Your task to perform on an android device: Open Google Chrome and open the bookmarks view Image 0: 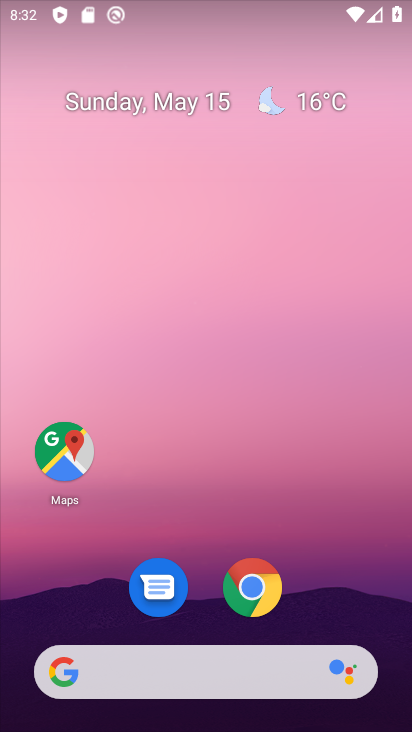
Step 0: click (253, 585)
Your task to perform on an android device: Open Google Chrome and open the bookmarks view Image 1: 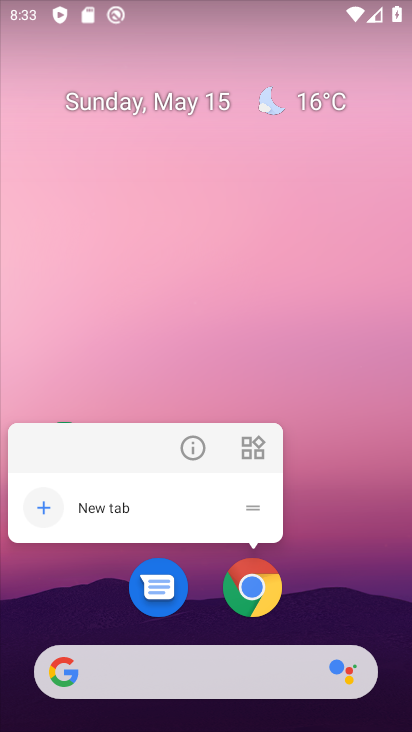
Step 1: click (262, 588)
Your task to perform on an android device: Open Google Chrome and open the bookmarks view Image 2: 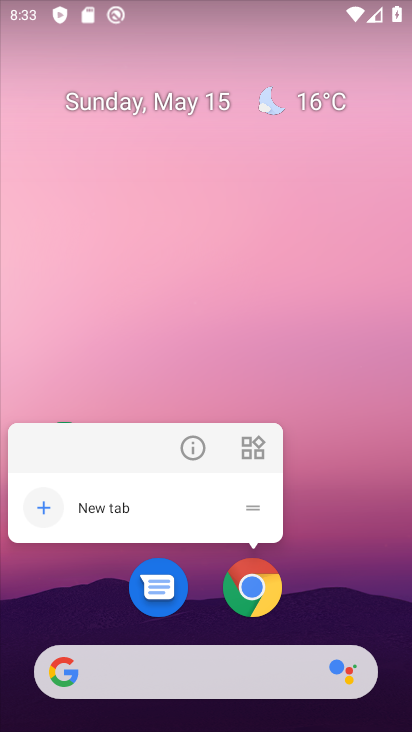
Step 2: click (256, 590)
Your task to perform on an android device: Open Google Chrome and open the bookmarks view Image 3: 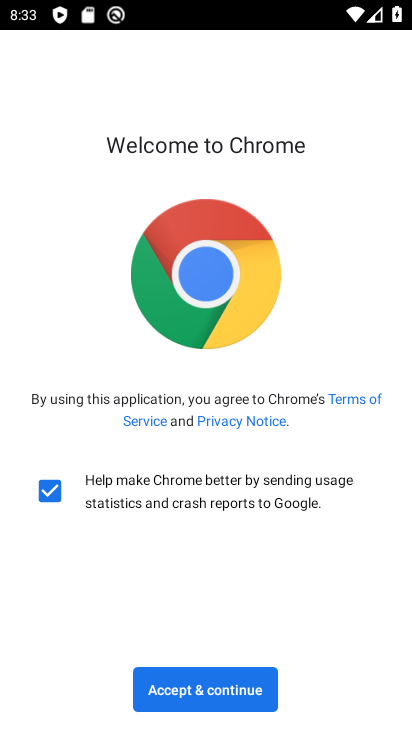
Step 3: click (212, 661)
Your task to perform on an android device: Open Google Chrome and open the bookmarks view Image 4: 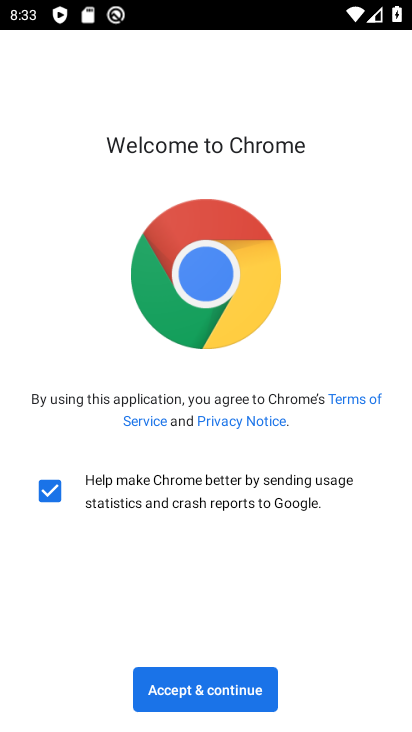
Step 4: click (209, 670)
Your task to perform on an android device: Open Google Chrome and open the bookmarks view Image 5: 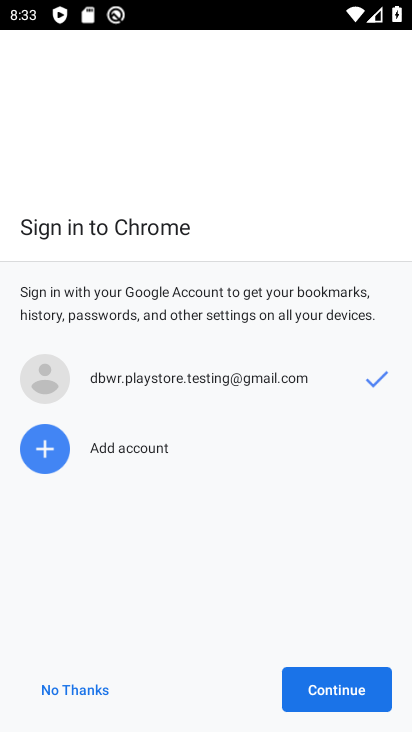
Step 5: click (354, 694)
Your task to perform on an android device: Open Google Chrome and open the bookmarks view Image 6: 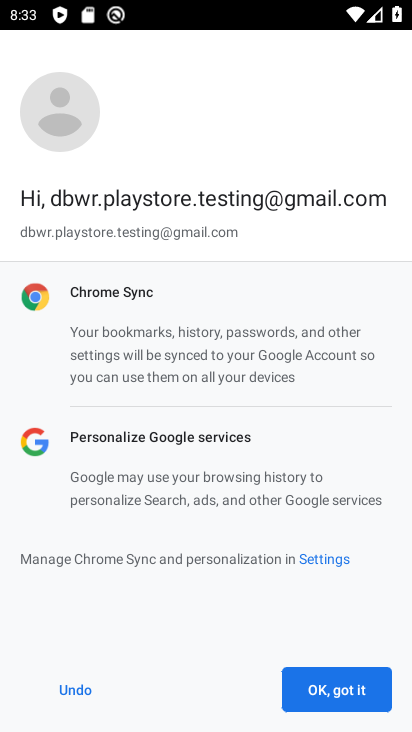
Step 6: click (340, 704)
Your task to perform on an android device: Open Google Chrome and open the bookmarks view Image 7: 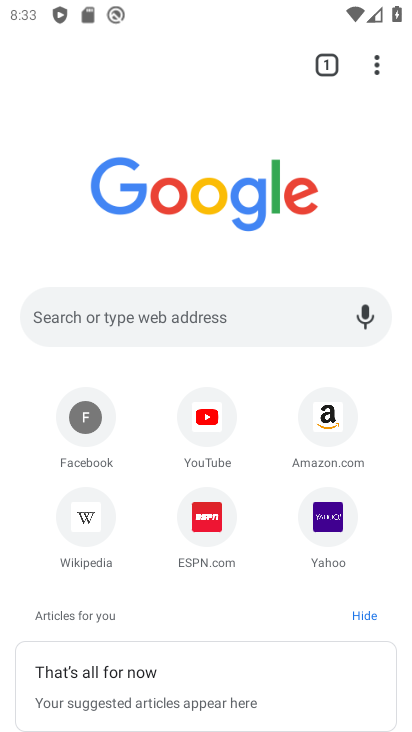
Step 7: task complete